Your task to perform on an android device: Go to Amazon Image 0: 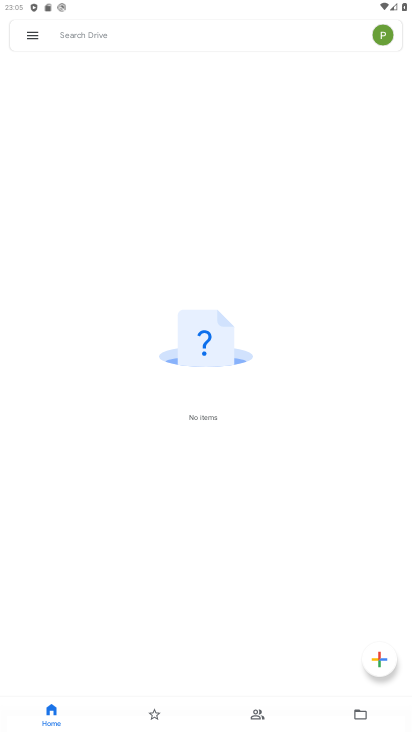
Step 0: press home button
Your task to perform on an android device: Go to Amazon Image 1: 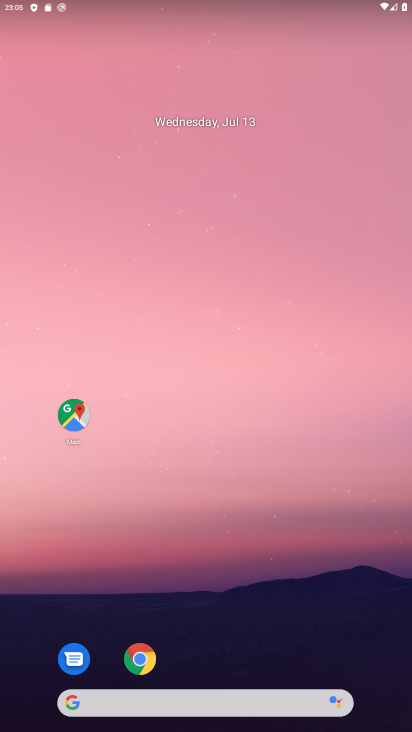
Step 1: click (139, 661)
Your task to perform on an android device: Go to Amazon Image 2: 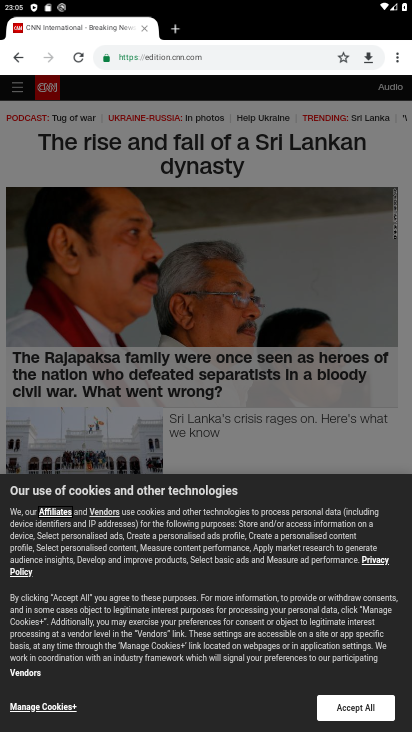
Step 2: click (234, 49)
Your task to perform on an android device: Go to Amazon Image 3: 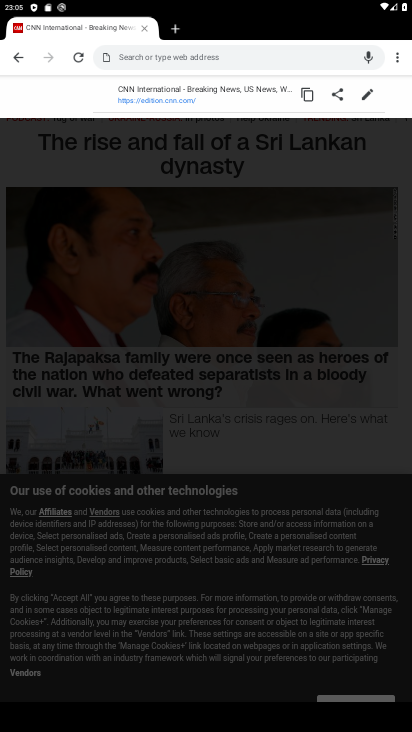
Step 3: type "amazon"
Your task to perform on an android device: Go to Amazon Image 4: 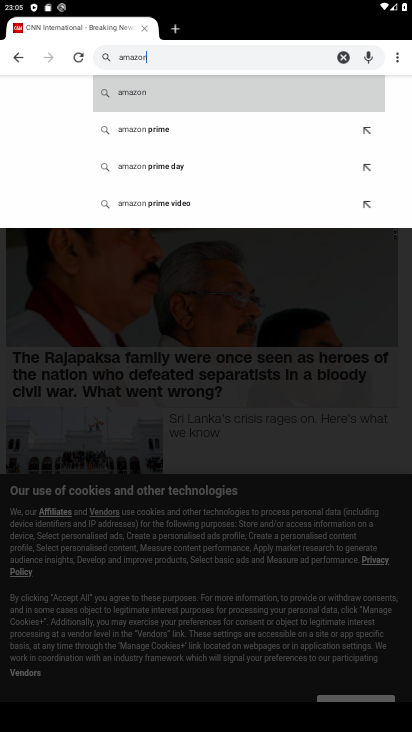
Step 4: click (120, 89)
Your task to perform on an android device: Go to Amazon Image 5: 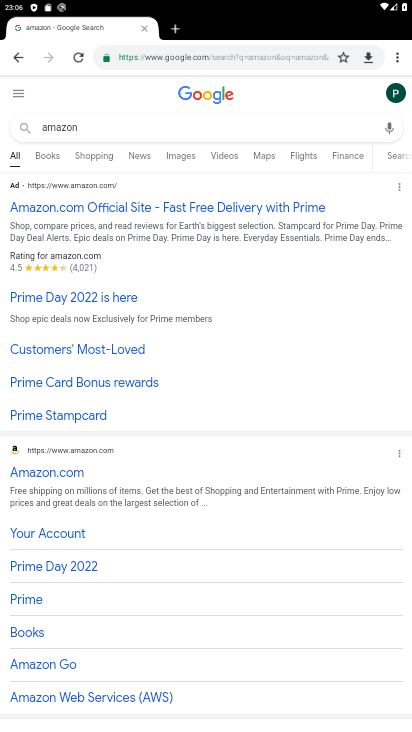
Step 5: click (91, 206)
Your task to perform on an android device: Go to Amazon Image 6: 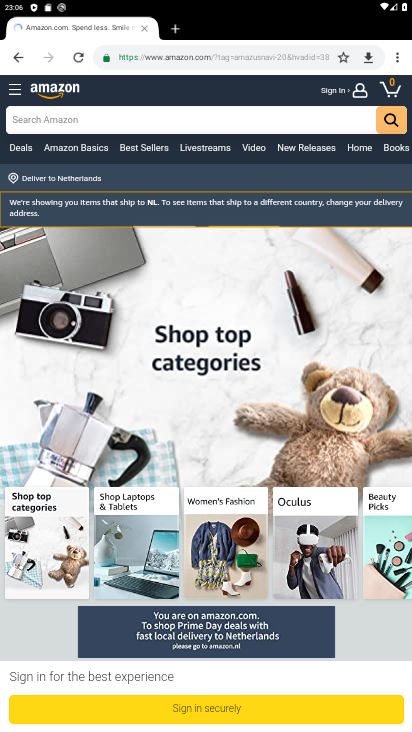
Step 6: task complete